Your task to perform on an android device: clear all cookies in the chrome app Image 0: 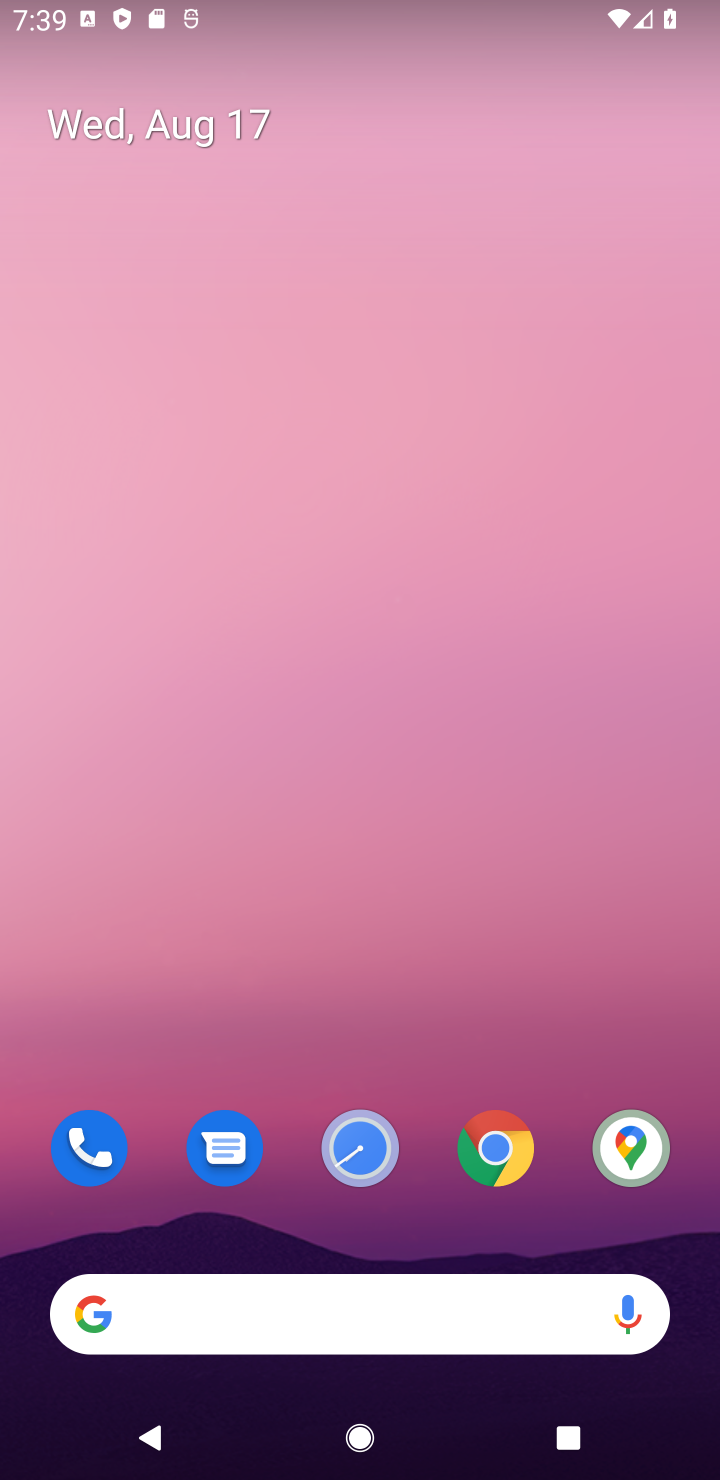
Step 0: click (496, 1145)
Your task to perform on an android device: clear all cookies in the chrome app Image 1: 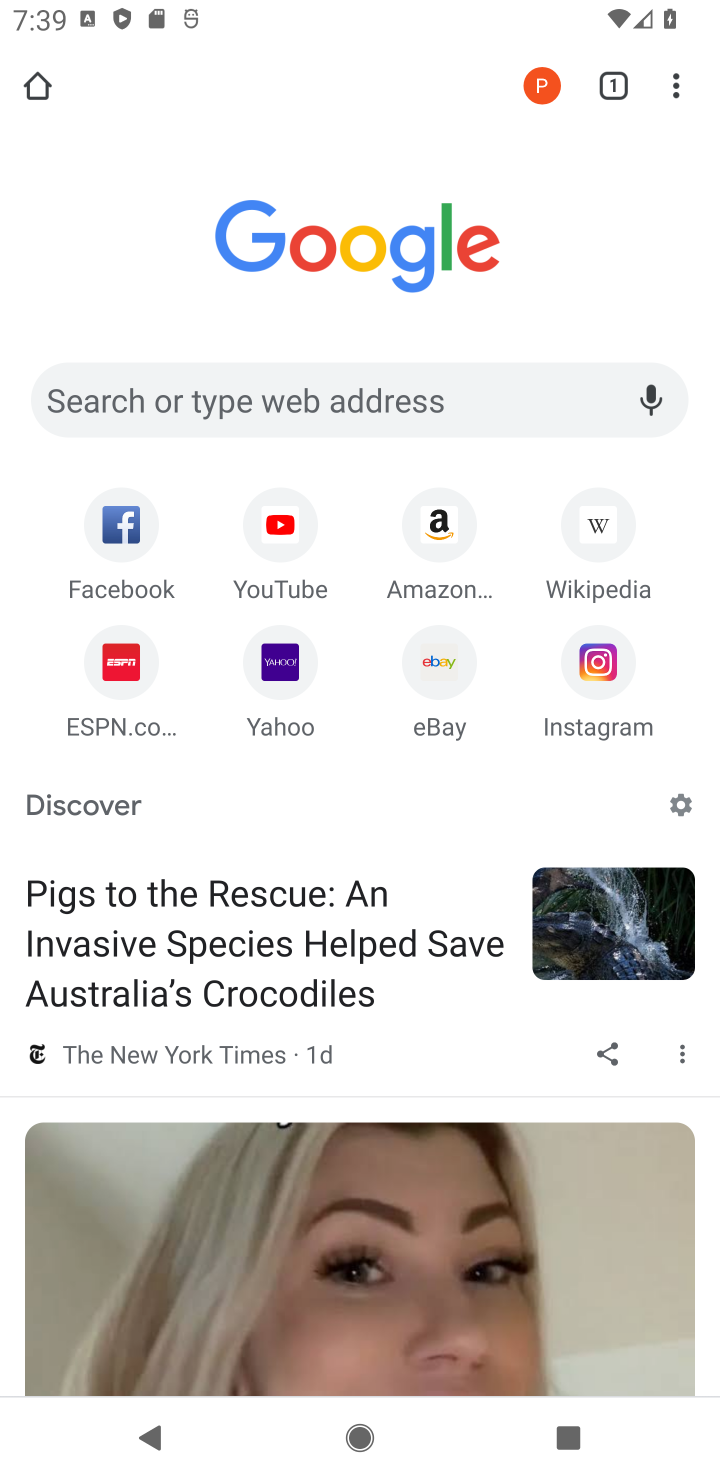
Step 1: click (665, 97)
Your task to perform on an android device: clear all cookies in the chrome app Image 2: 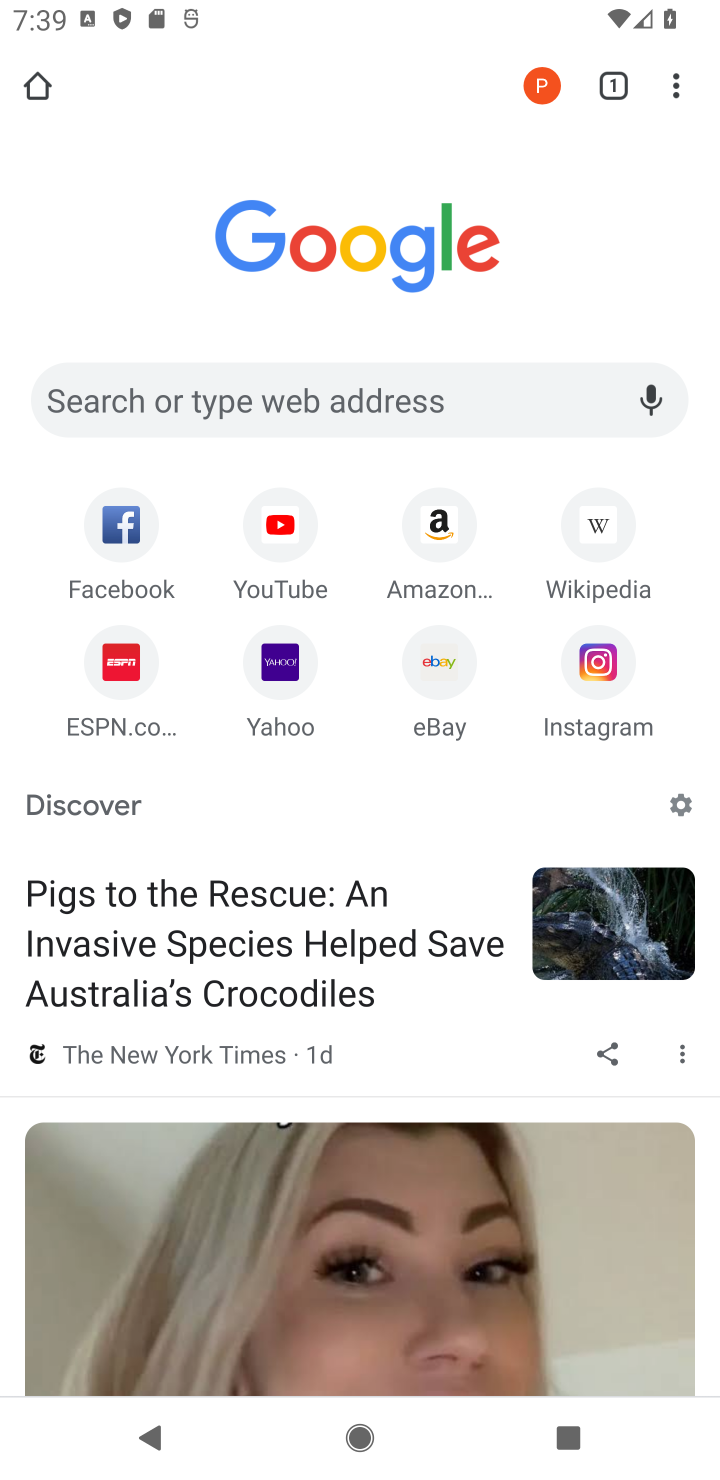
Step 2: click (671, 97)
Your task to perform on an android device: clear all cookies in the chrome app Image 3: 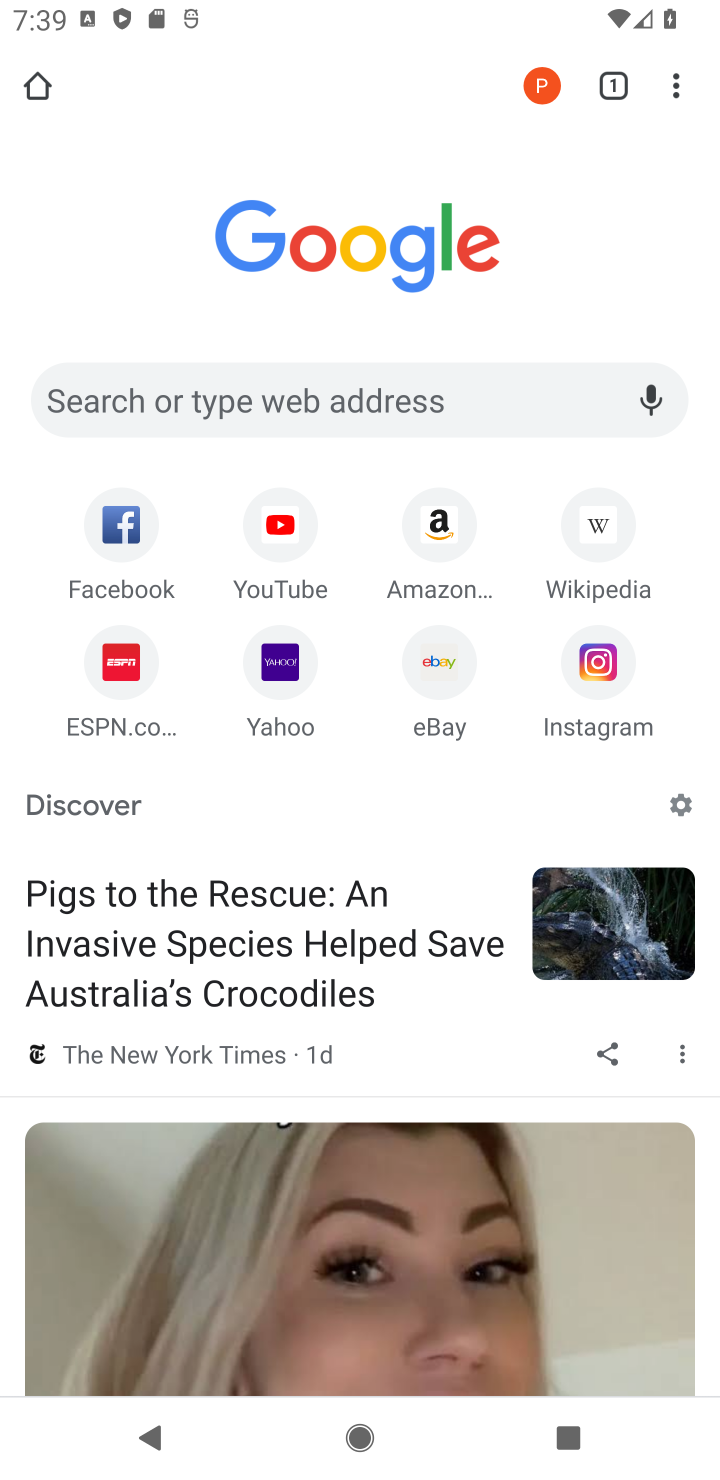
Step 3: click (668, 97)
Your task to perform on an android device: clear all cookies in the chrome app Image 4: 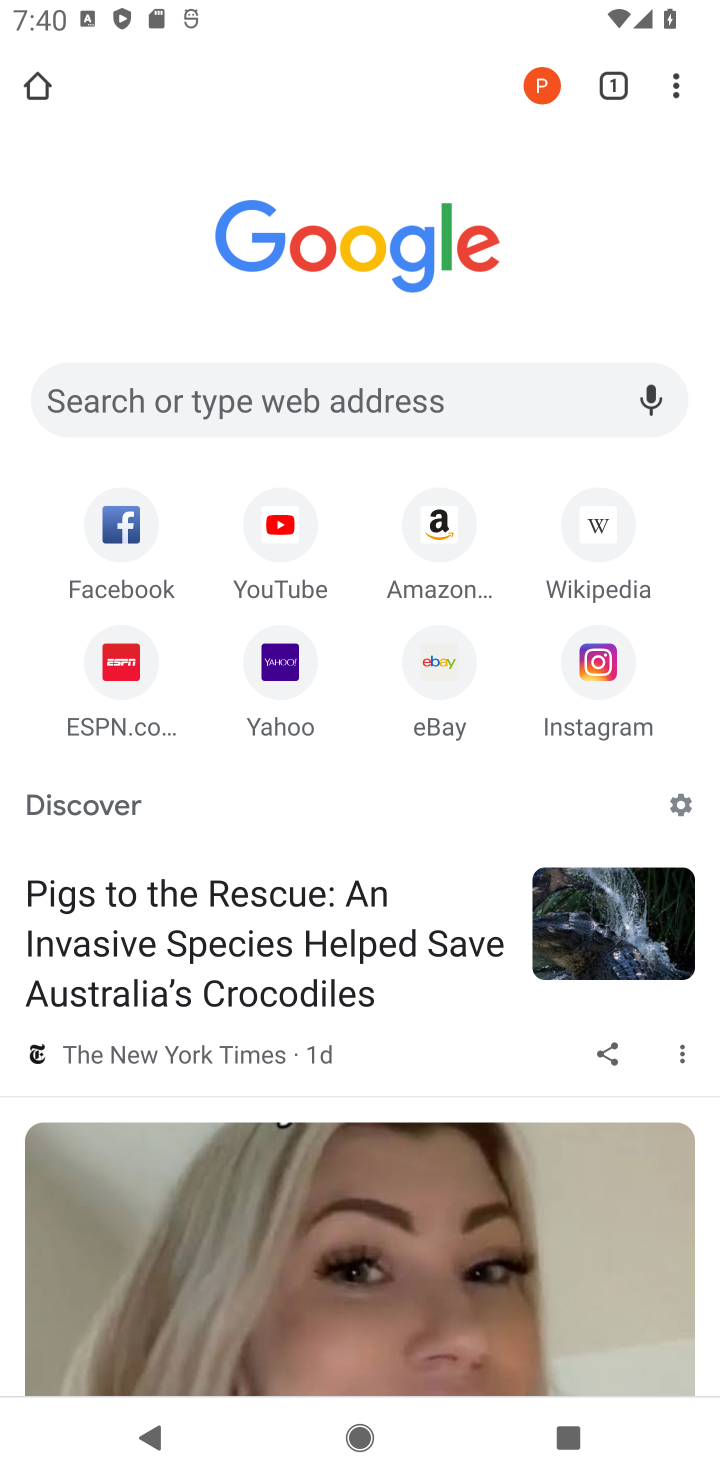
Step 4: task complete